Your task to perform on an android device: How do I get to the nearest IKEA? Image 0: 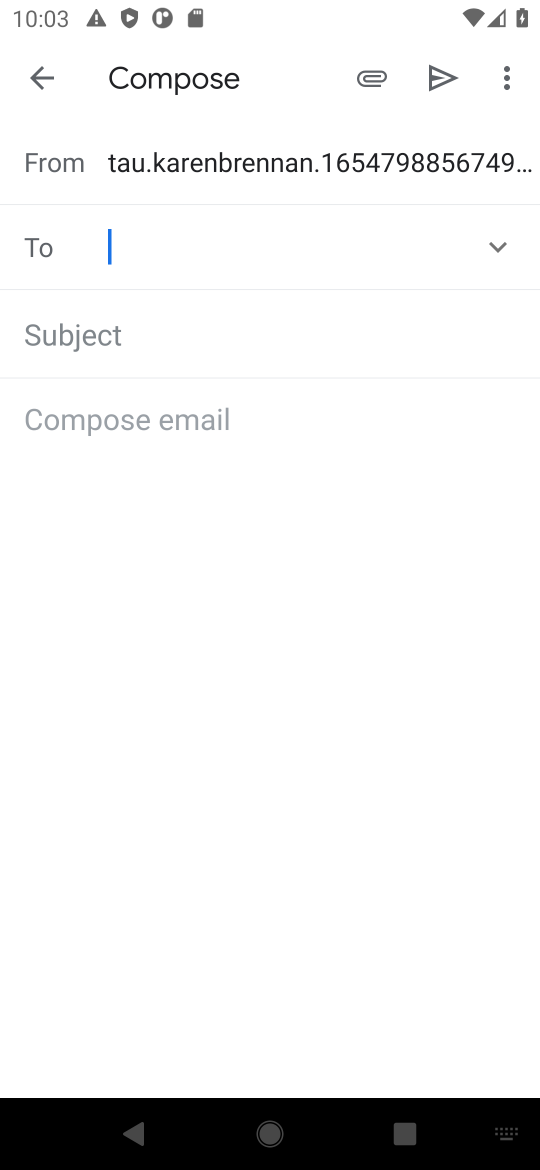
Step 0: press home button
Your task to perform on an android device: How do I get to the nearest IKEA? Image 1: 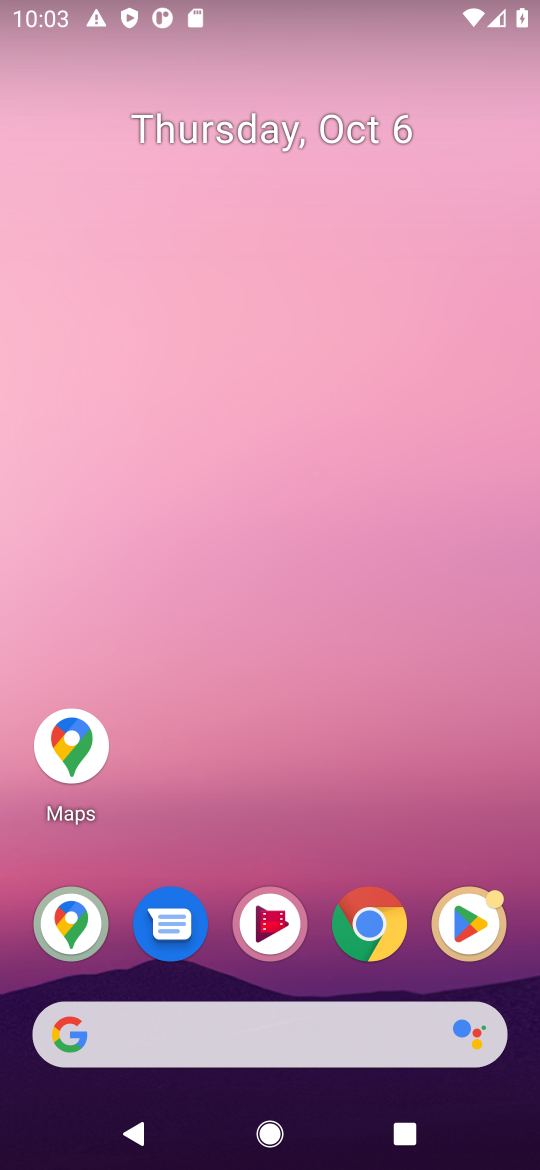
Step 1: click (366, 924)
Your task to perform on an android device: How do I get to the nearest IKEA? Image 2: 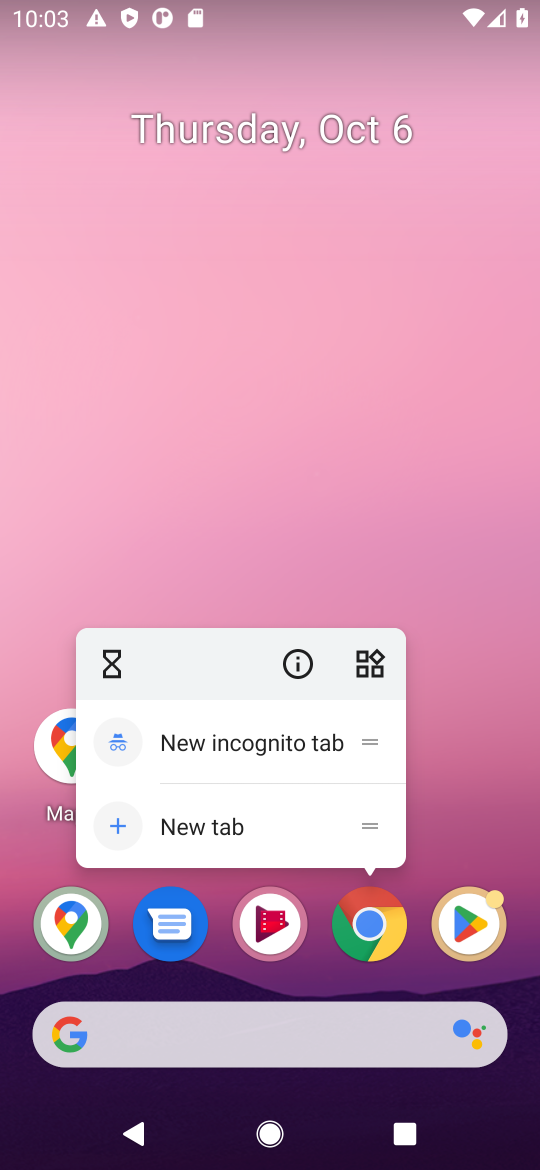
Step 2: click (366, 924)
Your task to perform on an android device: How do I get to the nearest IKEA? Image 3: 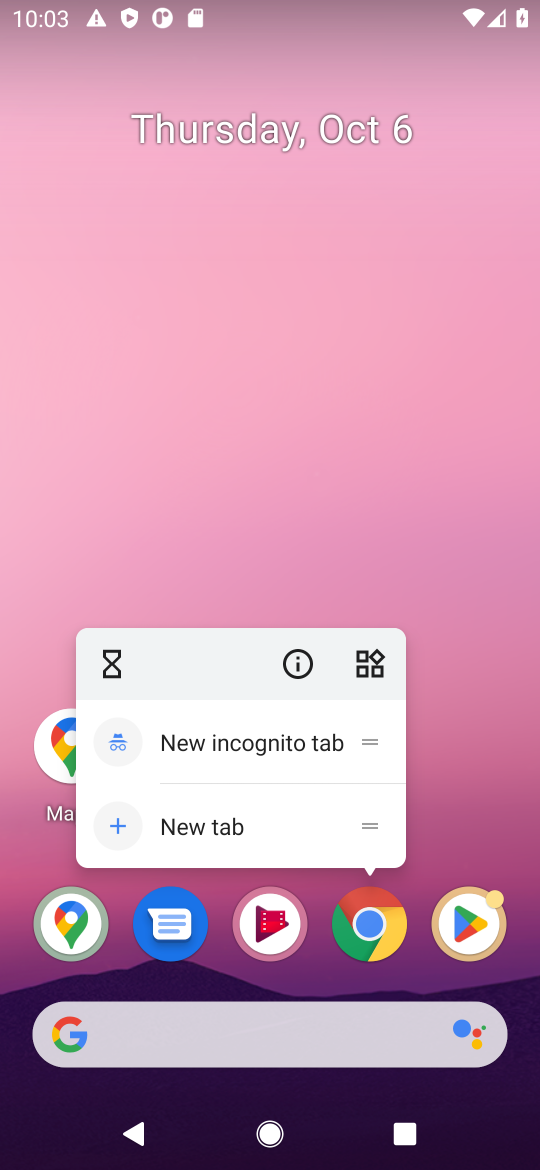
Step 3: click (372, 928)
Your task to perform on an android device: How do I get to the nearest IKEA? Image 4: 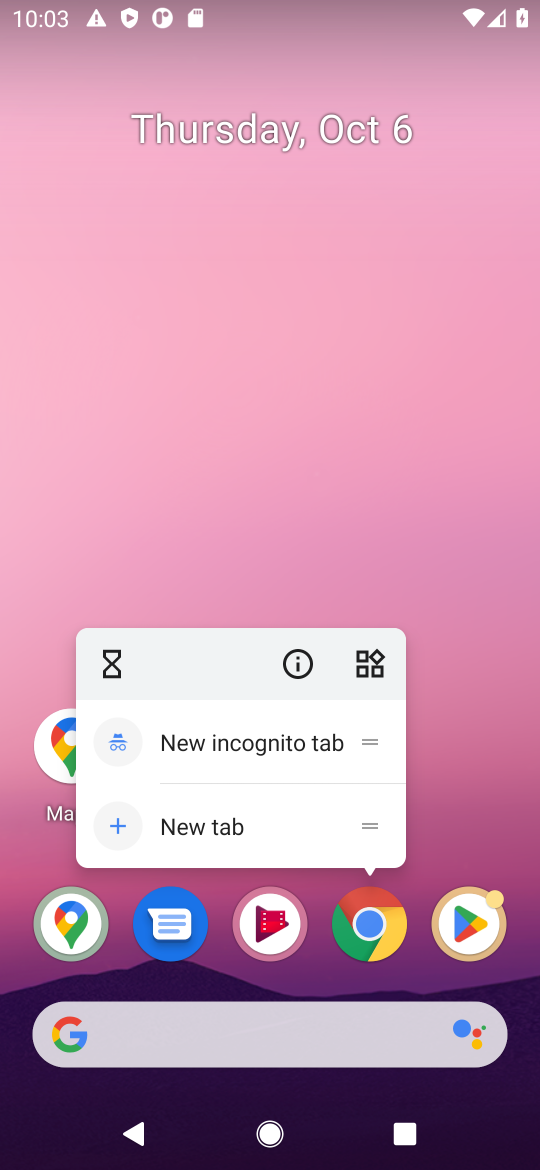
Step 4: click (368, 931)
Your task to perform on an android device: How do I get to the nearest IKEA? Image 5: 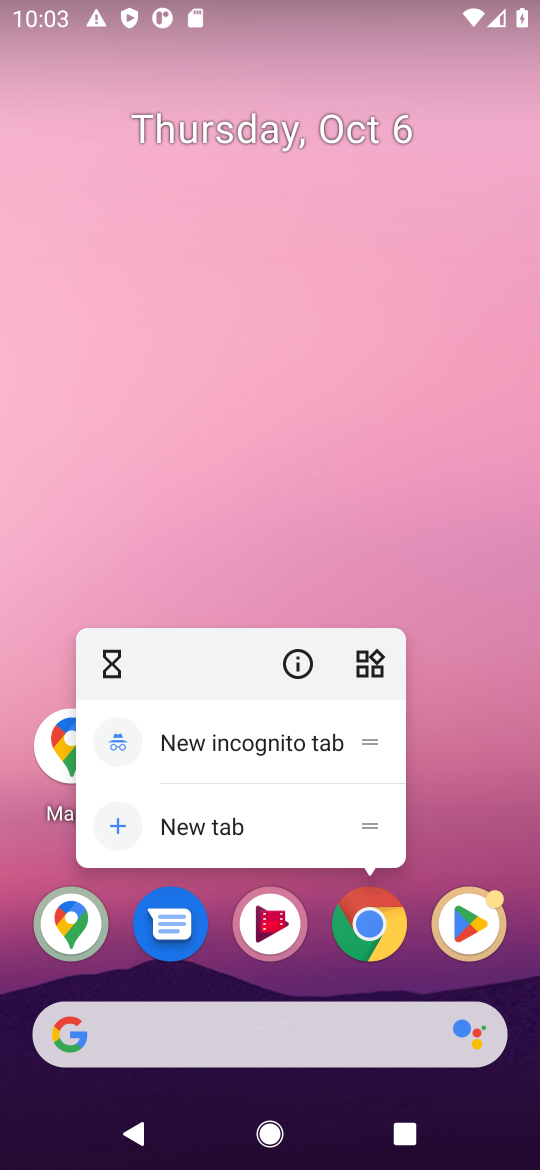
Step 5: click (368, 931)
Your task to perform on an android device: How do I get to the nearest IKEA? Image 6: 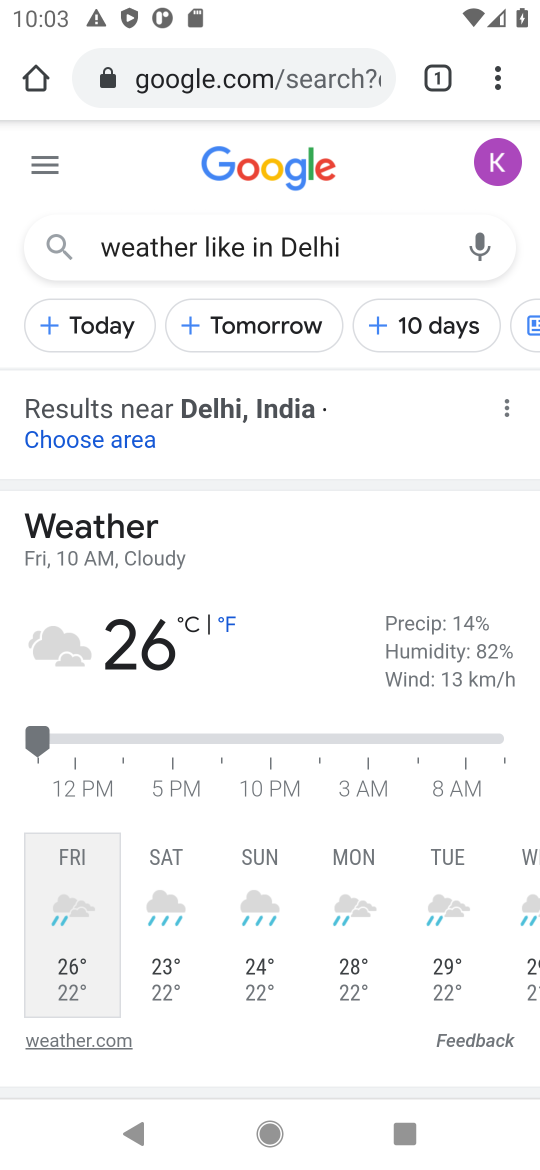
Step 6: click (313, 64)
Your task to perform on an android device: How do I get to the nearest IKEA? Image 7: 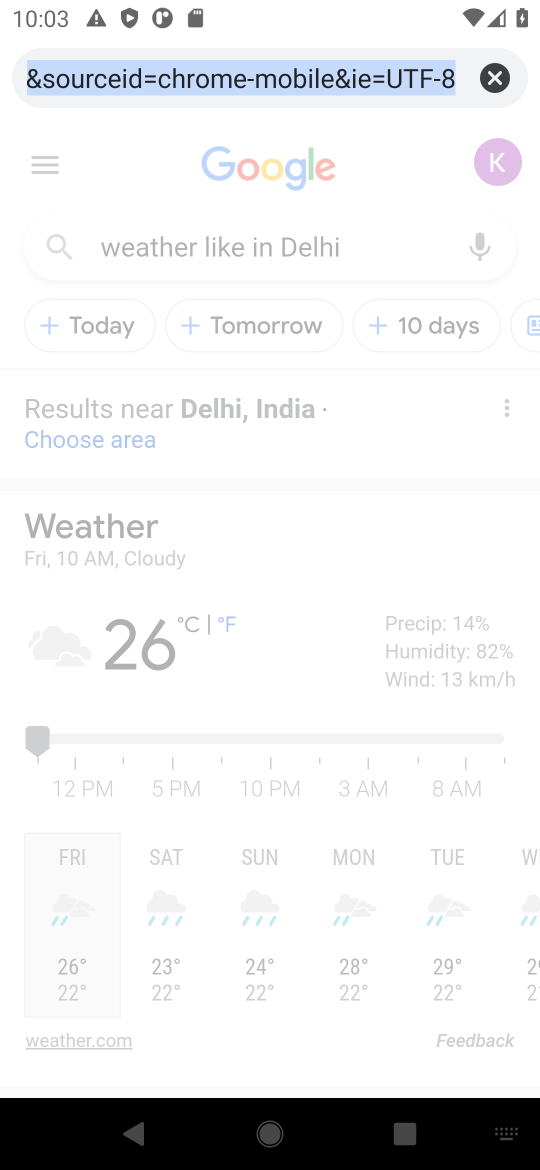
Step 7: click (482, 75)
Your task to perform on an android device: How do I get to the nearest IKEA? Image 8: 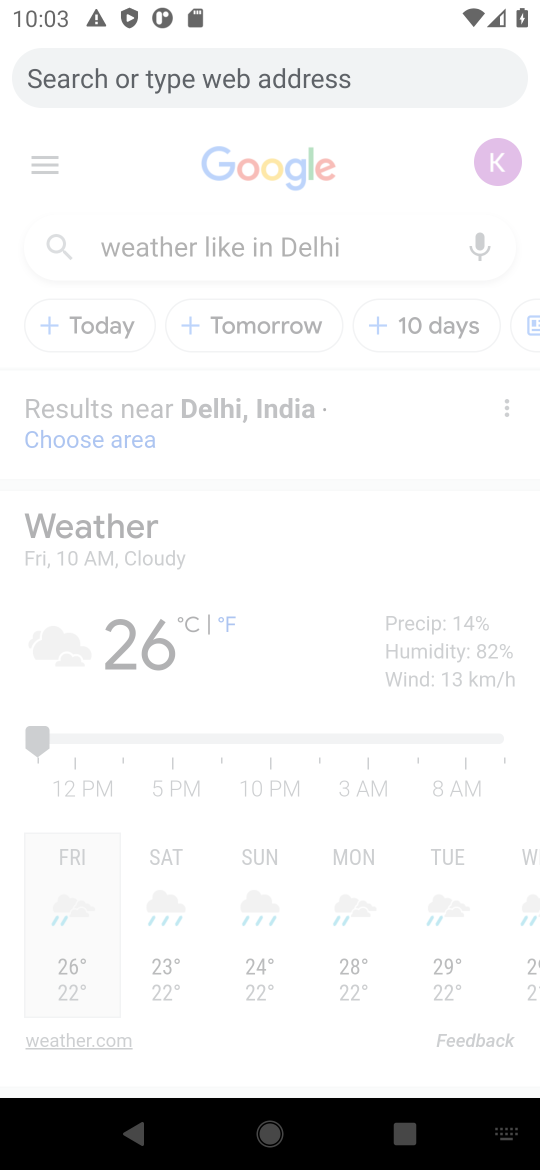
Step 8: type "How do I get to the nearest IKEA"
Your task to perform on an android device: How do I get to the nearest IKEA? Image 9: 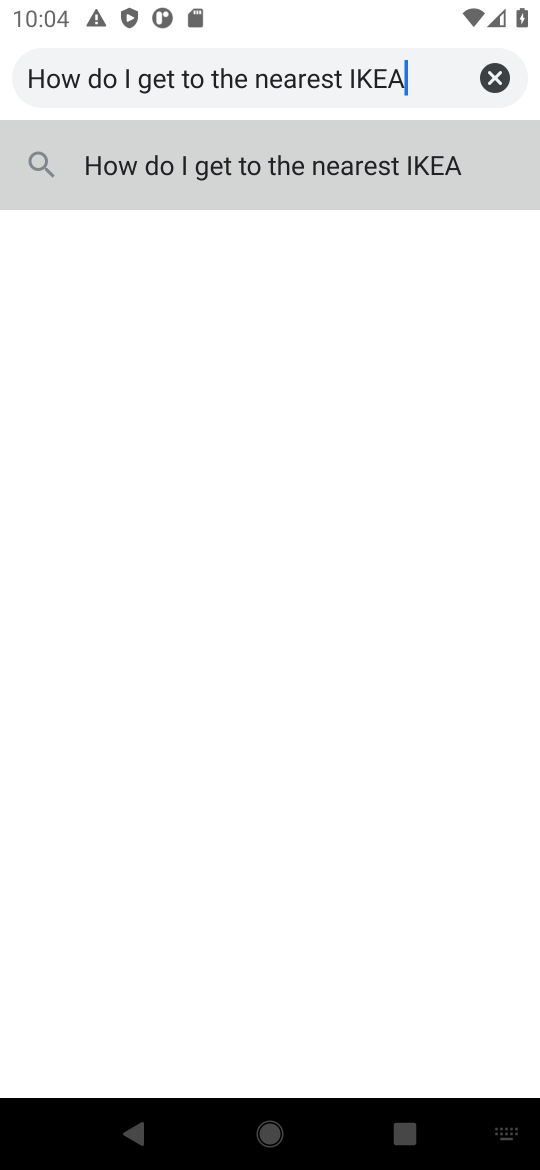
Step 9: click (339, 166)
Your task to perform on an android device: How do I get to the nearest IKEA? Image 10: 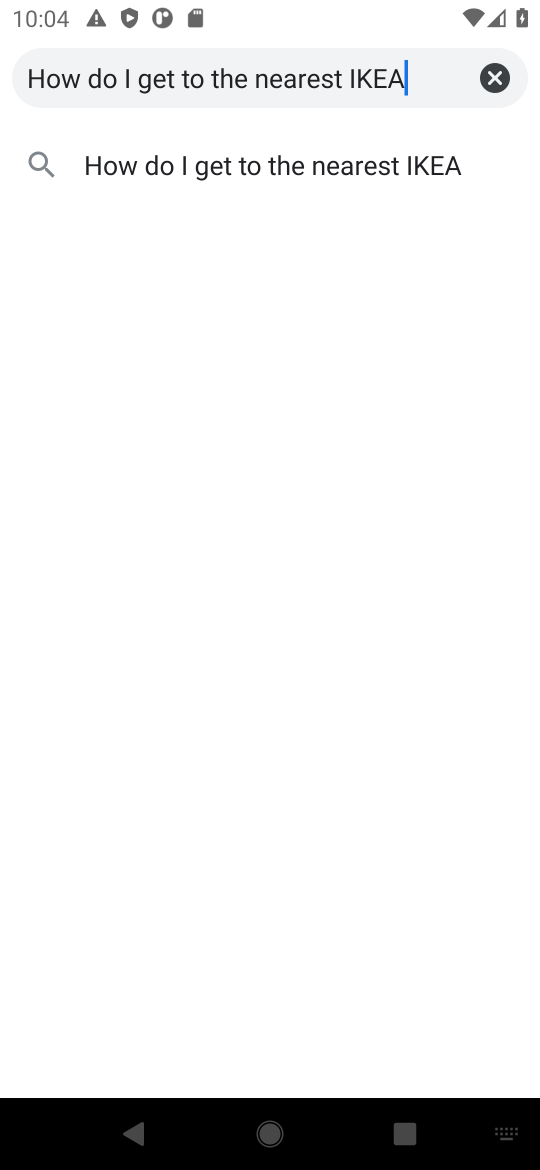
Step 10: click (299, 161)
Your task to perform on an android device: How do I get to the nearest IKEA? Image 11: 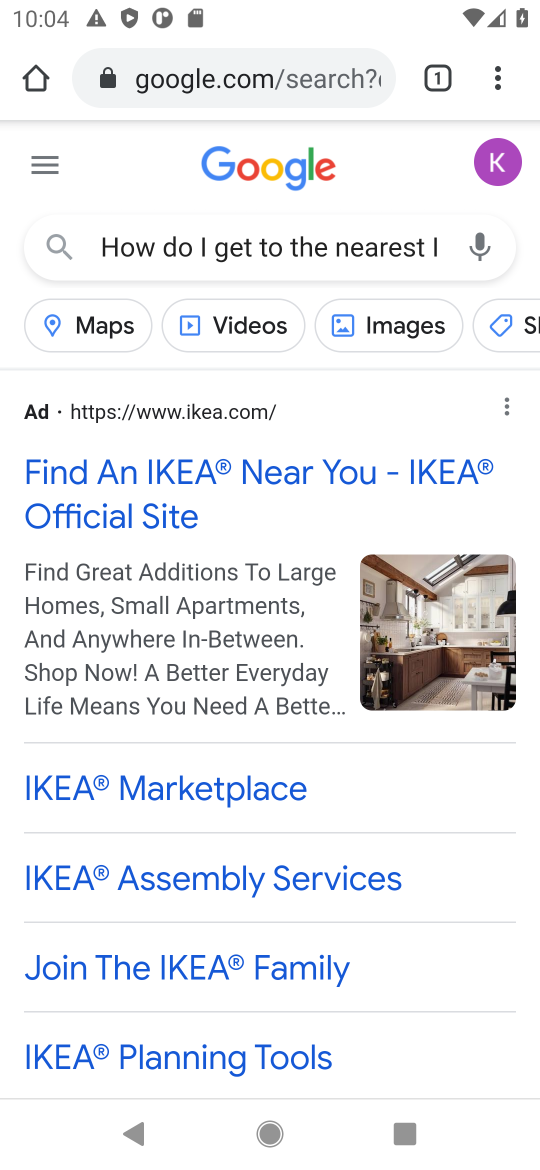
Step 11: task complete